Your task to perform on an android device: Search for "lenovo thinkpad" on ebay, select the first entry, and add it to the cart. Image 0: 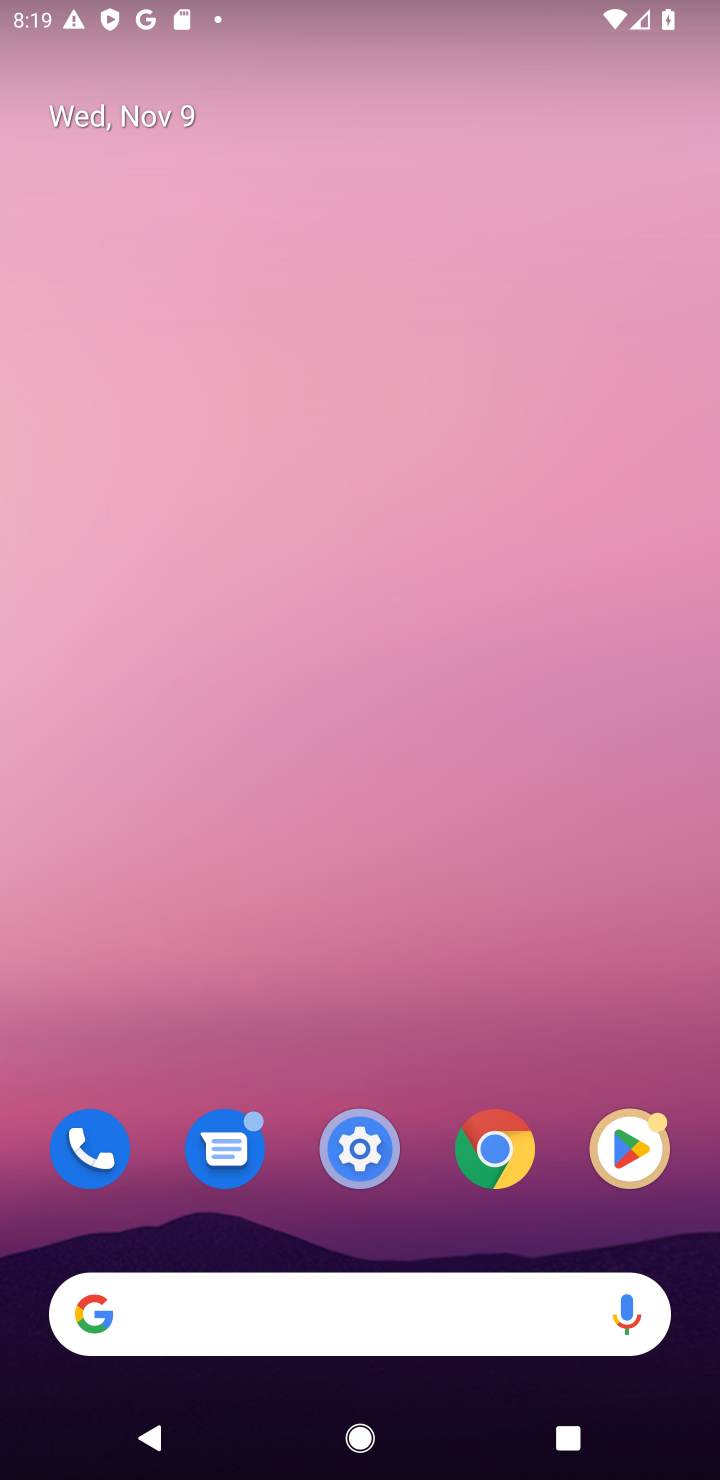
Step 0: drag from (444, 1183) to (264, 142)
Your task to perform on an android device: Search for "lenovo thinkpad" on ebay, select the first entry, and add it to the cart. Image 1: 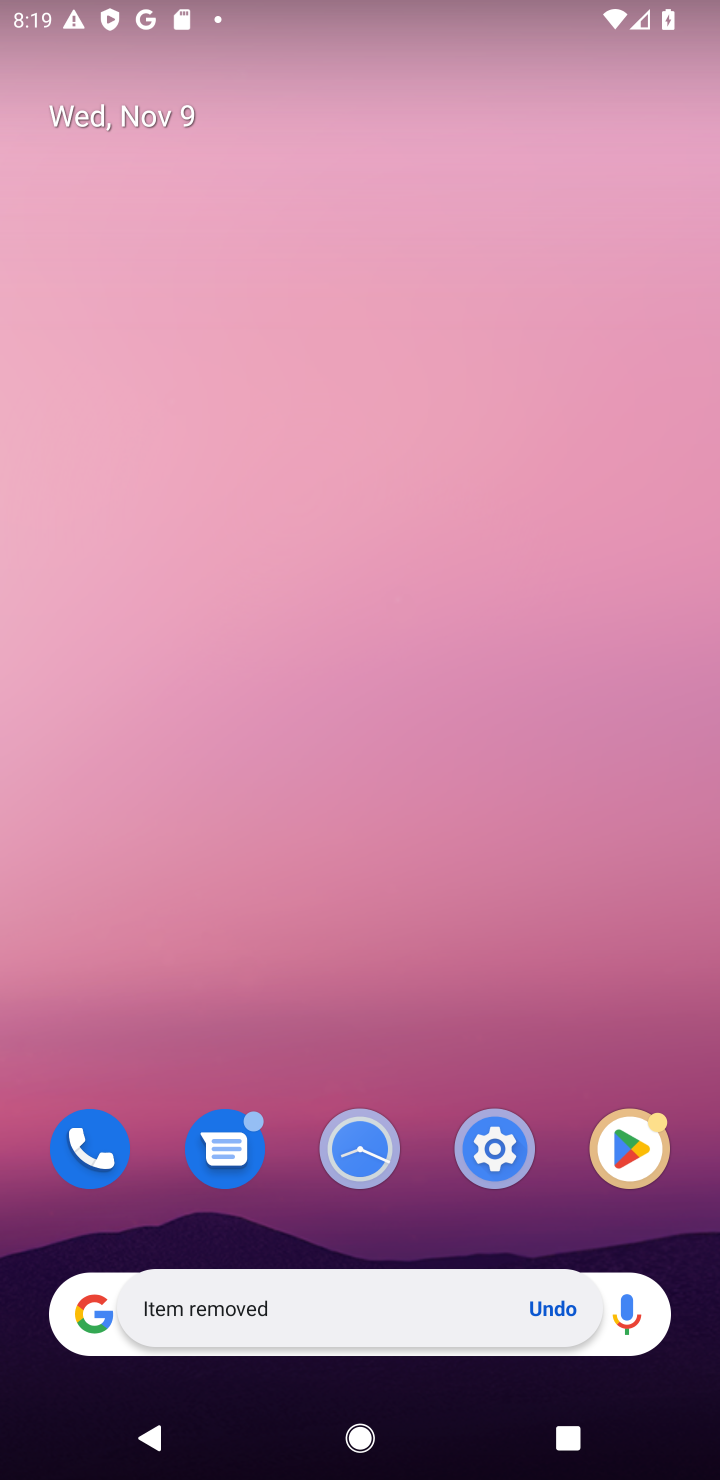
Step 1: drag from (251, 1313) to (373, 231)
Your task to perform on an android device: Search for "lenovo thinkpad" on ebay, select the first entry, and add it to the cart. Image 2: 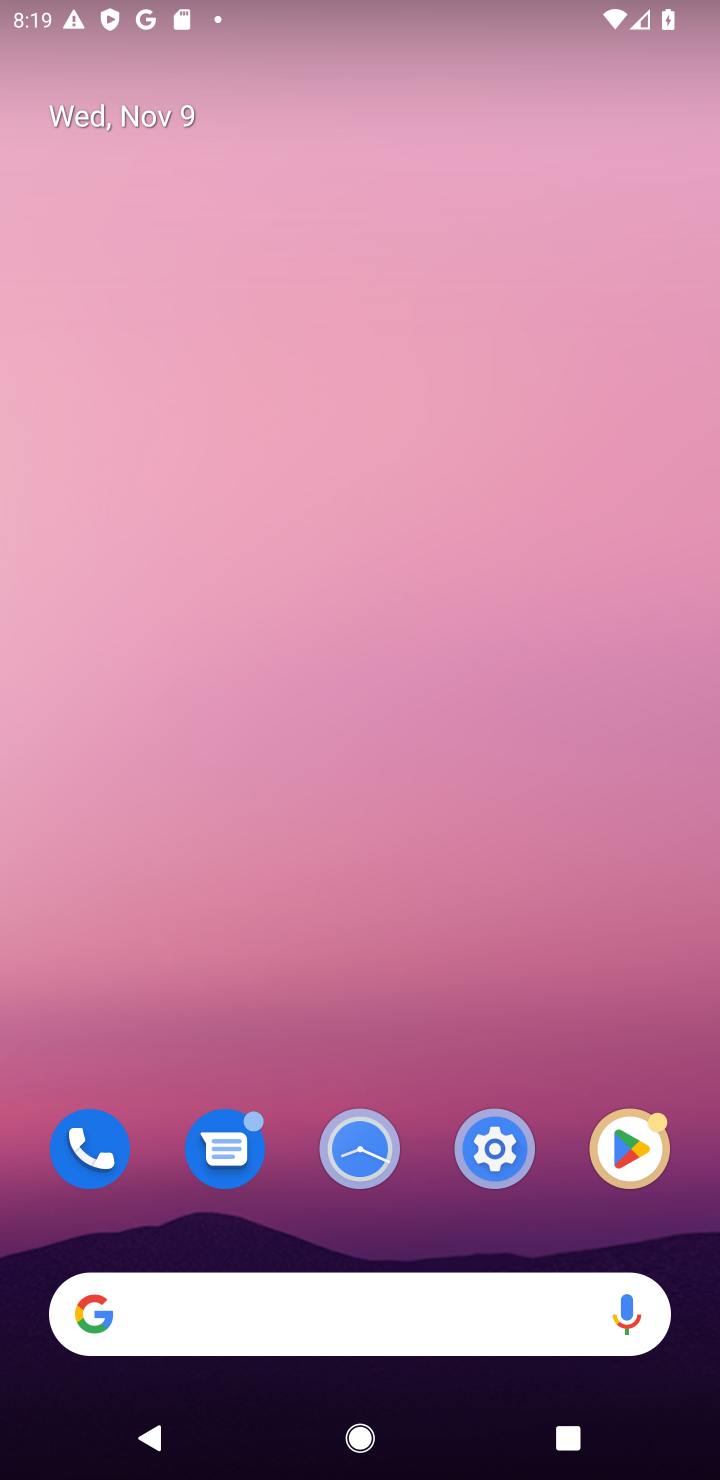
Step 2: drag from (469, 1062) to (525, 164)
Your task to perform on an android device: Search for "lenovo thinkpad" on ebay, select the first entry, and add it to the cart. Image 3: 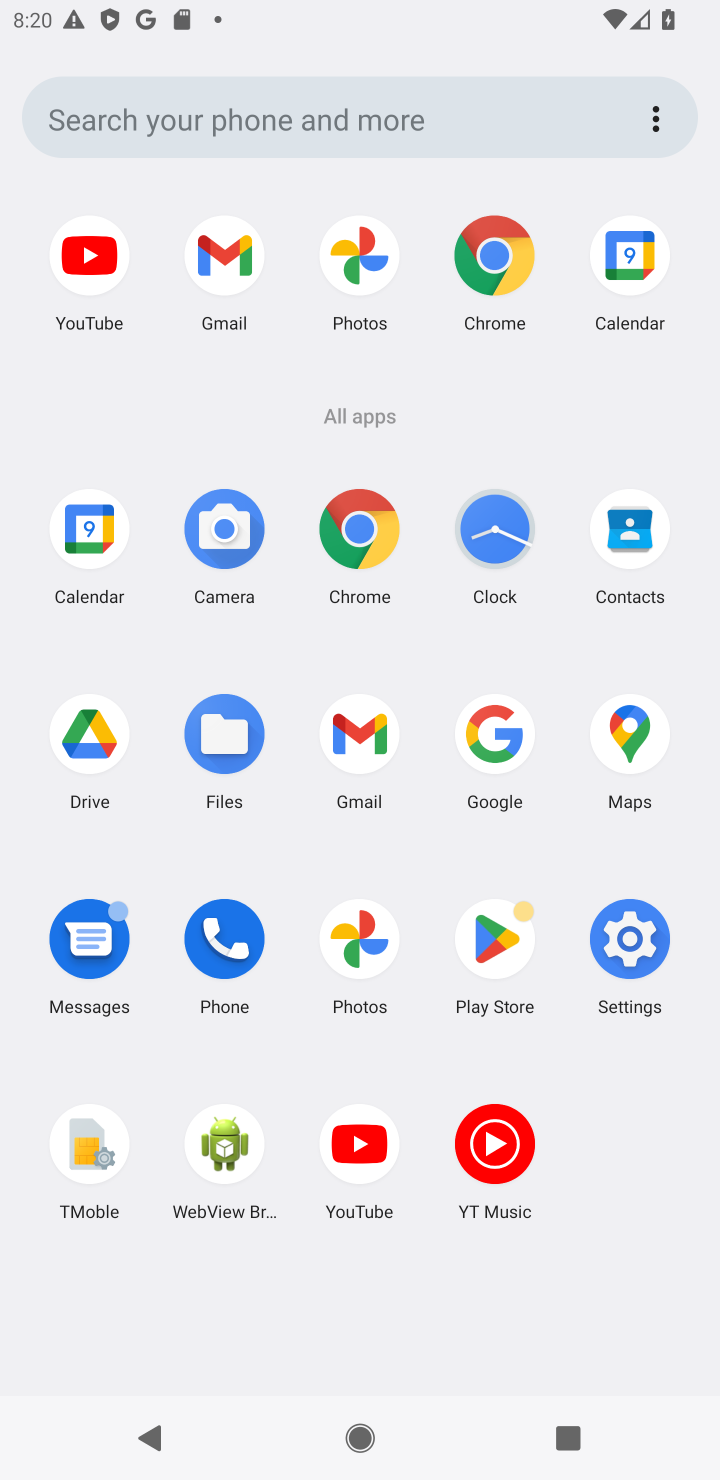
Step 3: click (352, 511)
Your task to perform on an android device: Search for "lenovo thinkpad" on ebay, select the first entry, and add it to the cart. Image 4: 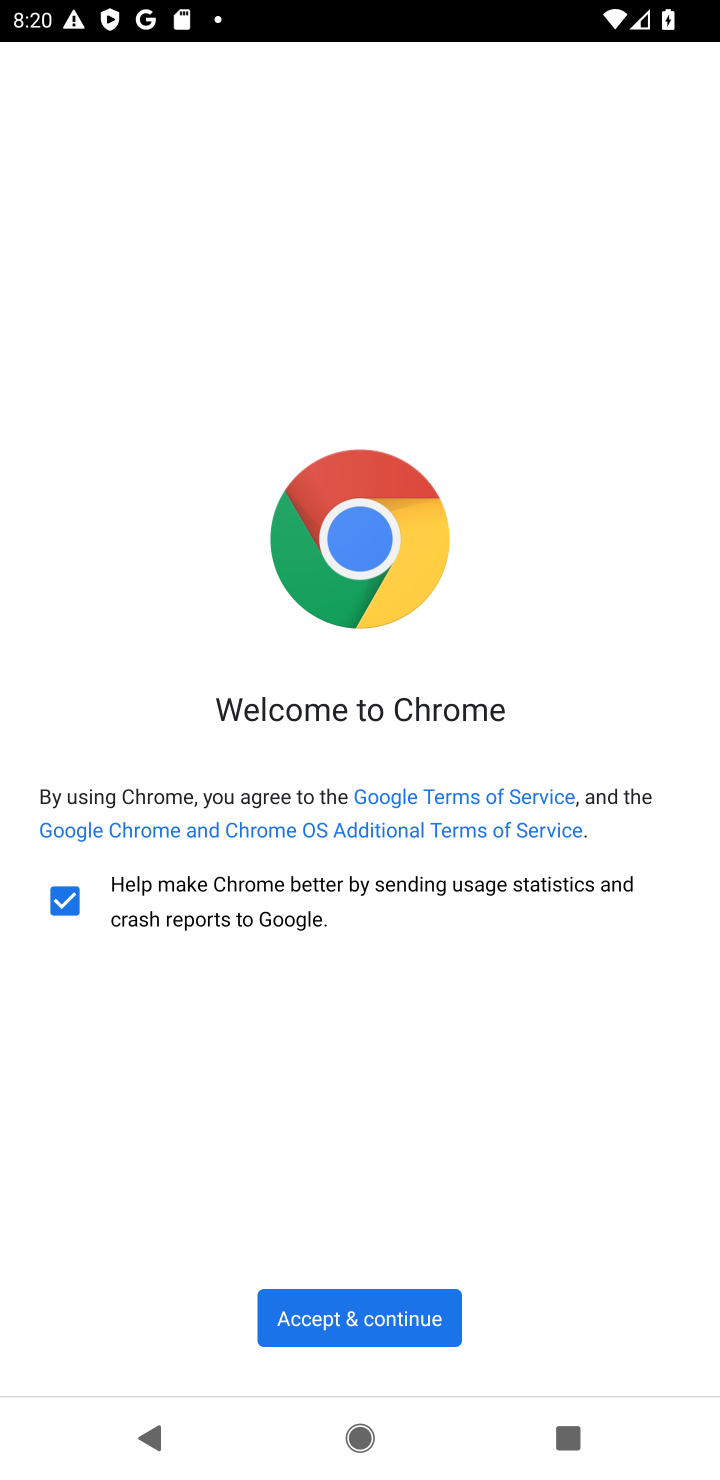
Step 4: click (386, 1307)
Your task to perform on an android device: Search for "lenovo thinkpad" on ebay, select the first entry, and add it to the cart. Image 5: 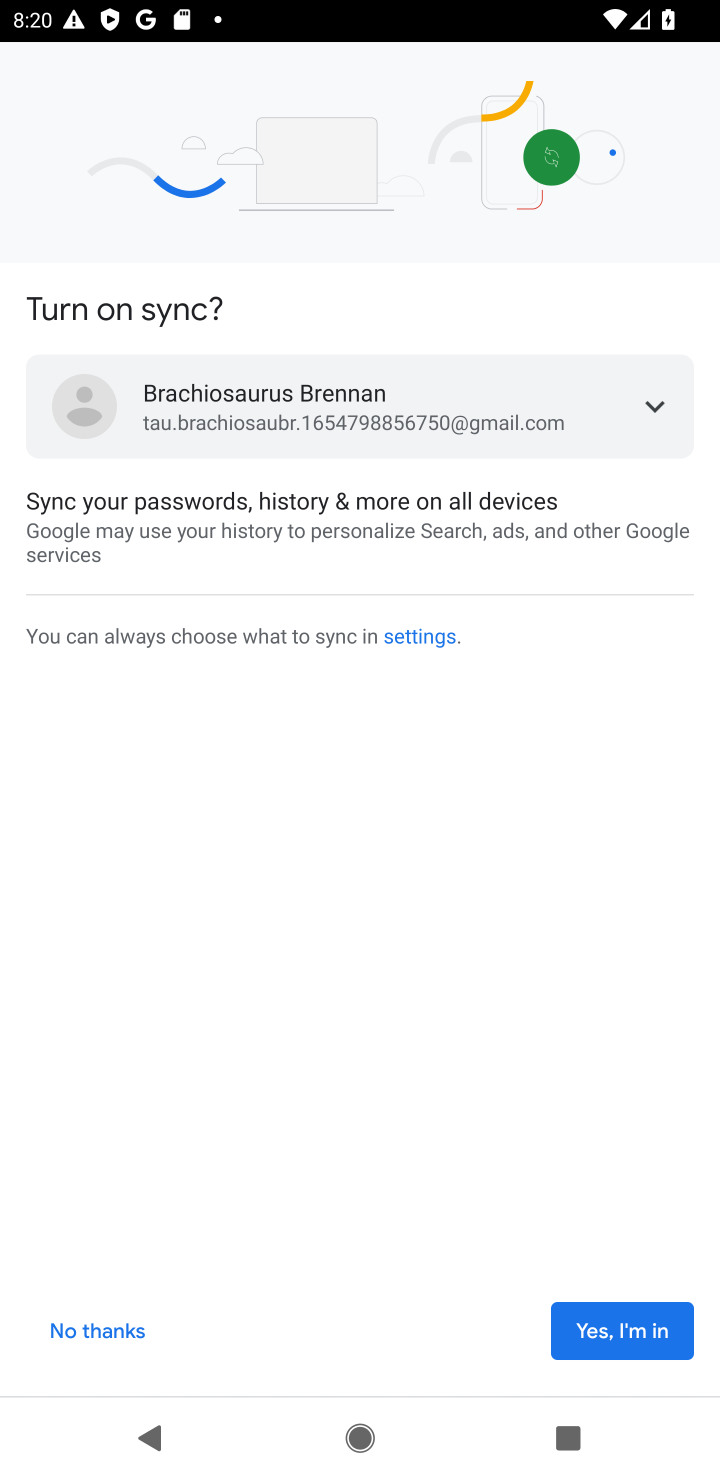
Step 5: click (600, 1326)
Your task to perform on an android device: Search for "lenovo thinkpad" on ebay, select the first entry, and add it to the cart. Image 6: 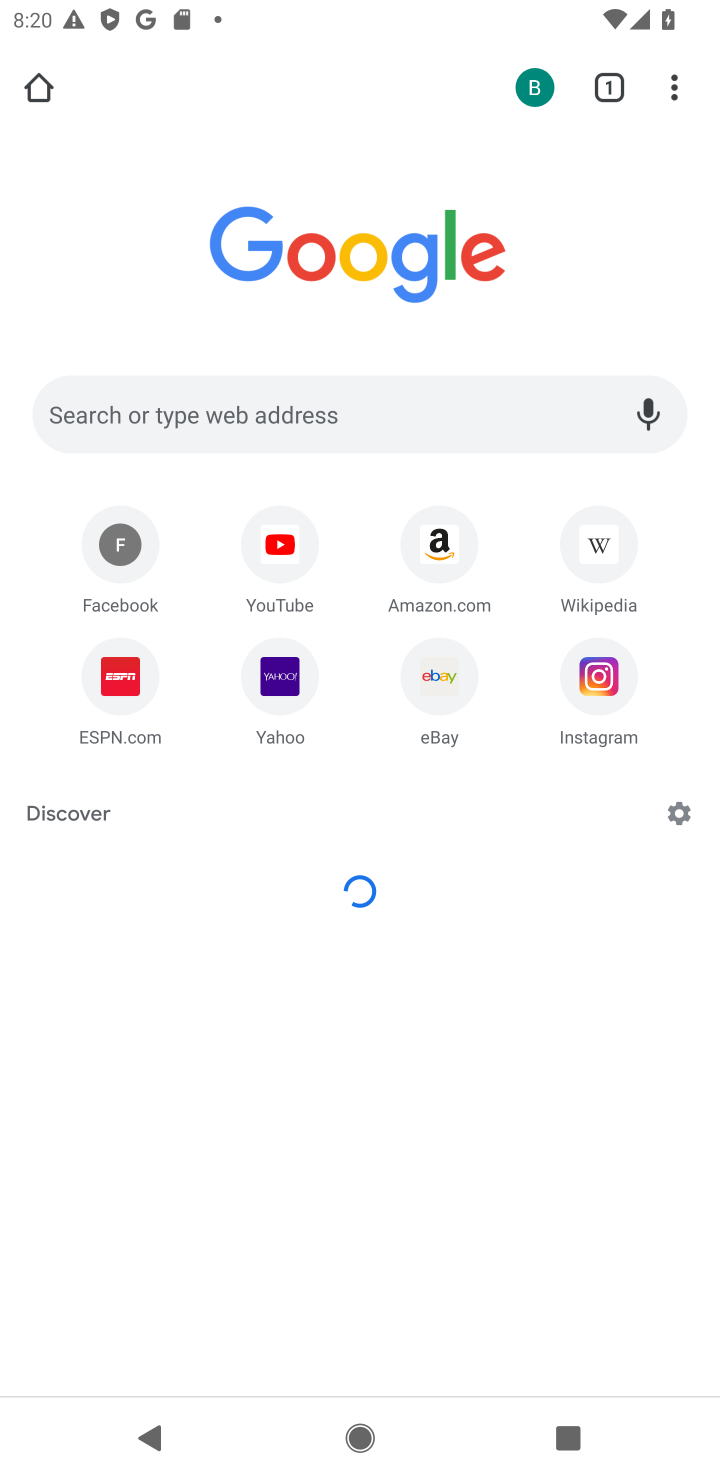
Step 6: click (245, 438)
Your task to perform on an android device: Search for "lenovo thinkpad" on ebay, select the first entry, and add it to the cart. Image 7: 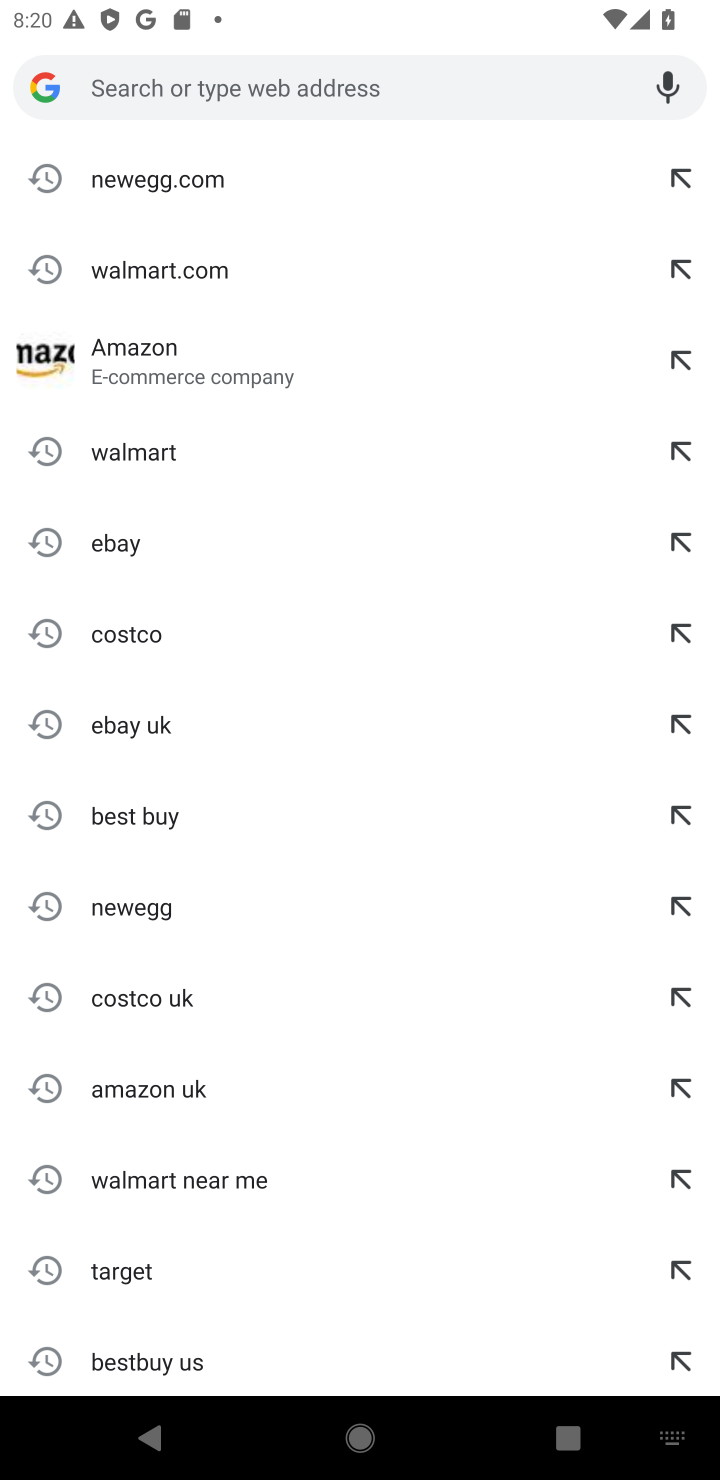
Step 7: type "ebay"
Your task to perform on an android device: Search for "lenovo thinkpad" on ebay, select the first entry, and add it to the cart. Image 8: 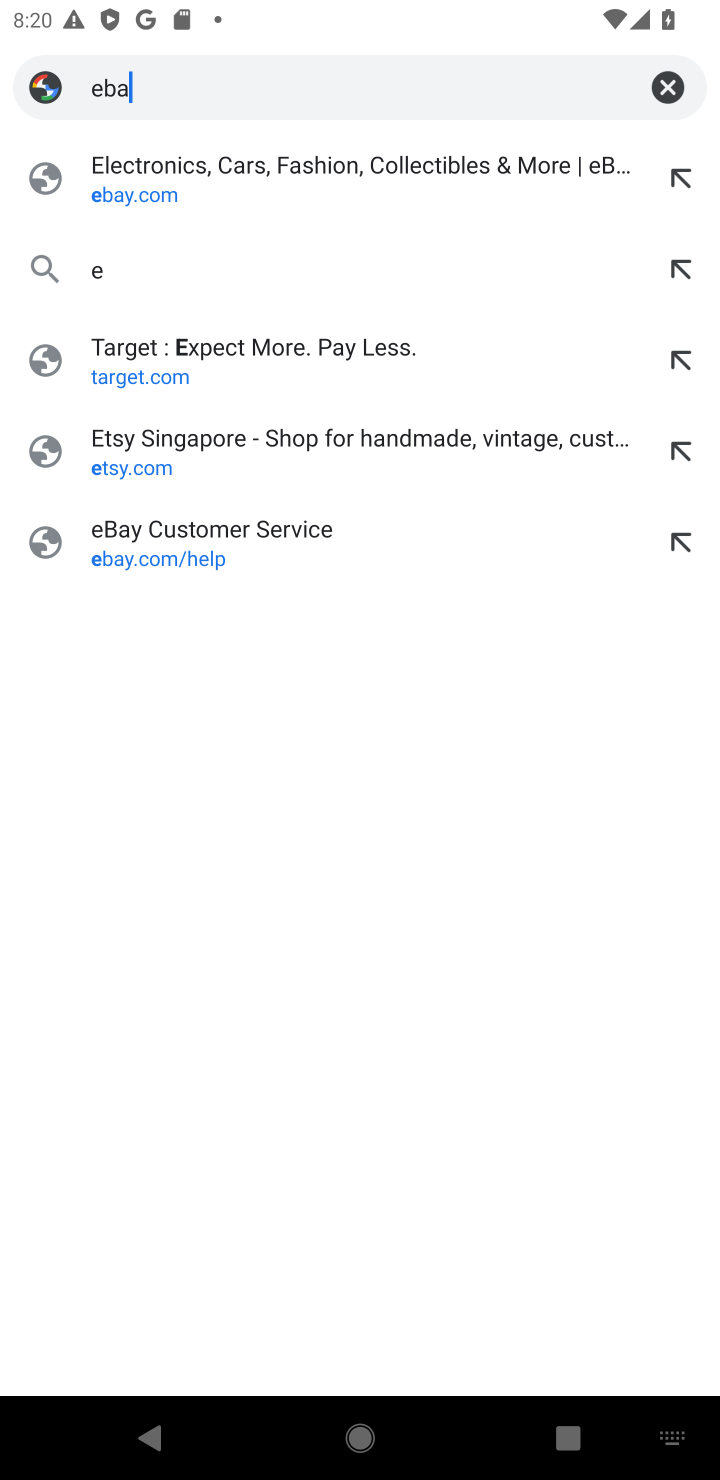
Step 8: press enter
Your task to perform on an android device: Search for "lenovo thinkpad" on ebay, select the first entry, and add it to the cart. Image 9: 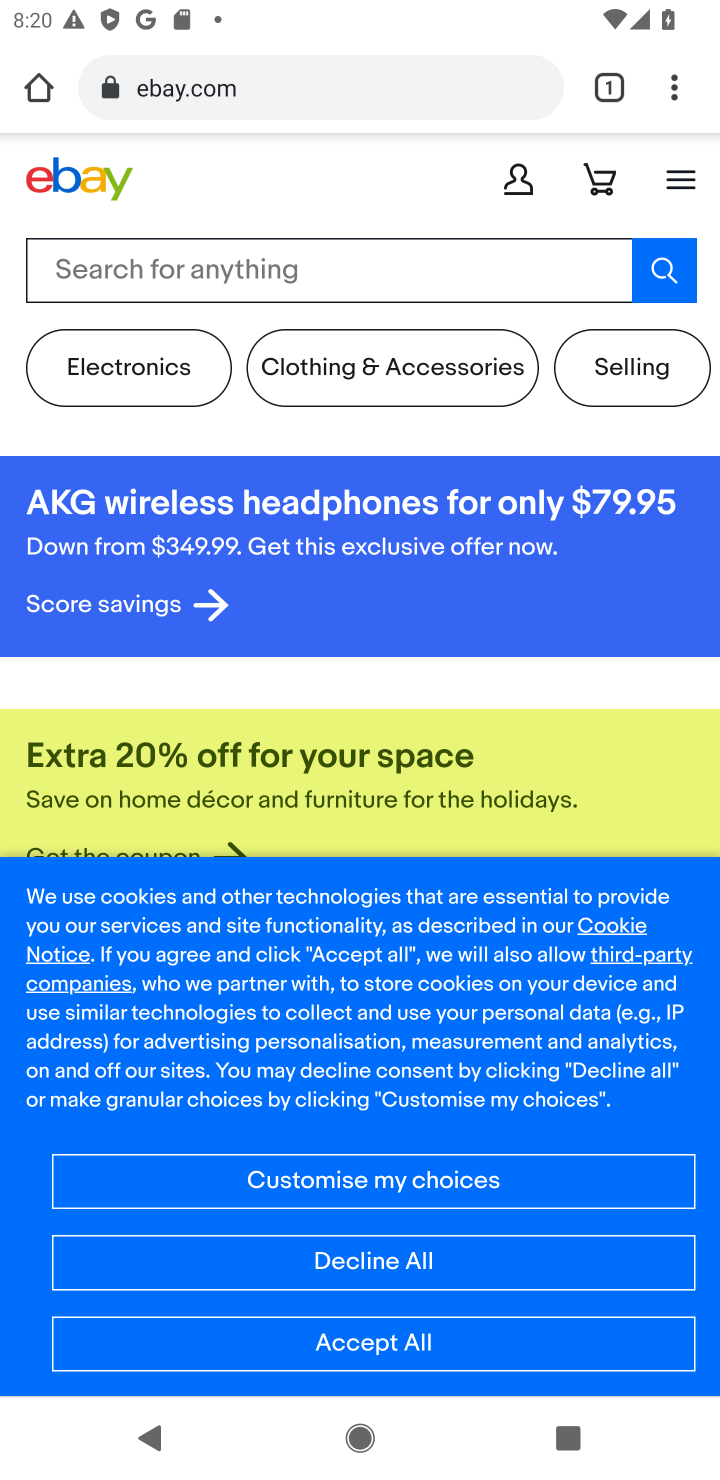
Step 9: click (118, 276)
Your task to perform on an android device: Search for "lenovo thinkpad" on ebay, select the first entry, and add it to the cart. Image 10: 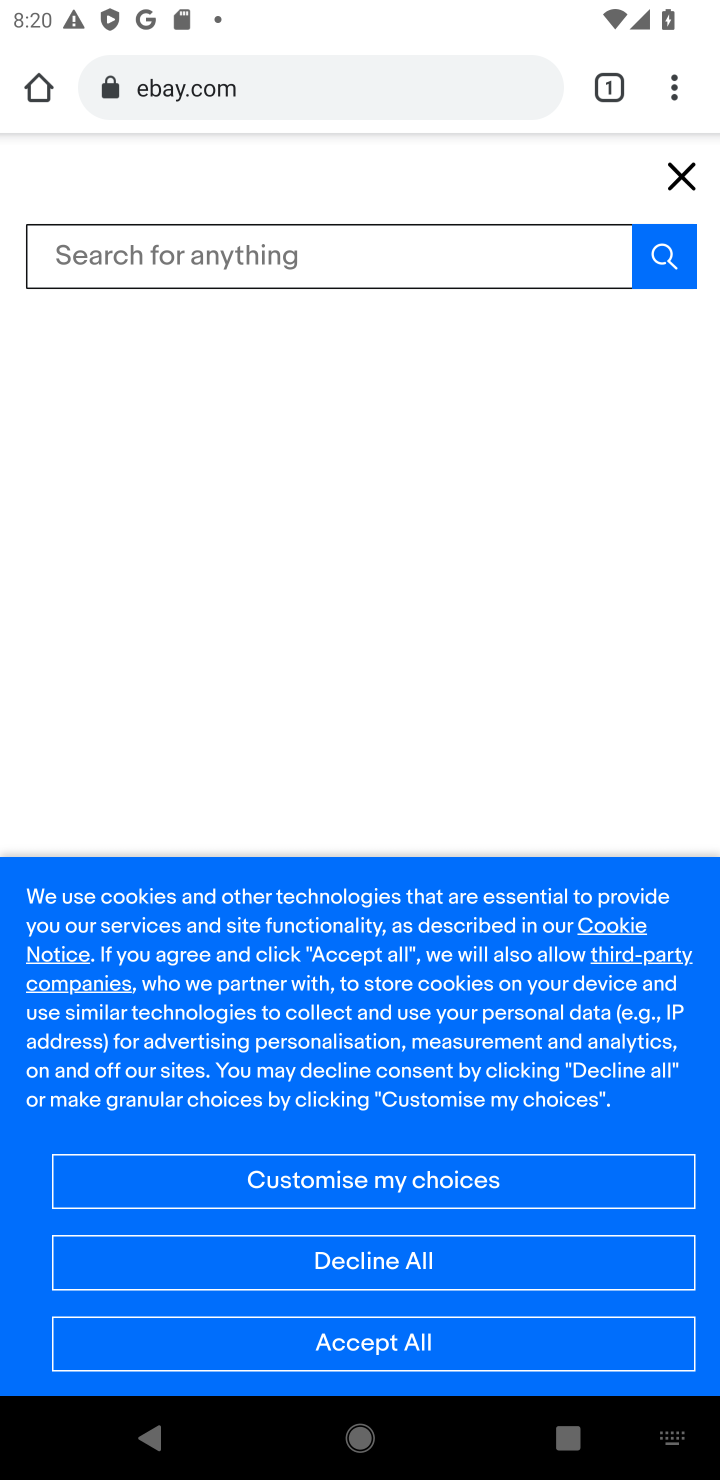
Step 10: type "lenovo thinkpad"
Your task to perform on an android device: Search for "lenovo thinkpad" on ebay, select the first entry, and add it to the cart. Image 11: 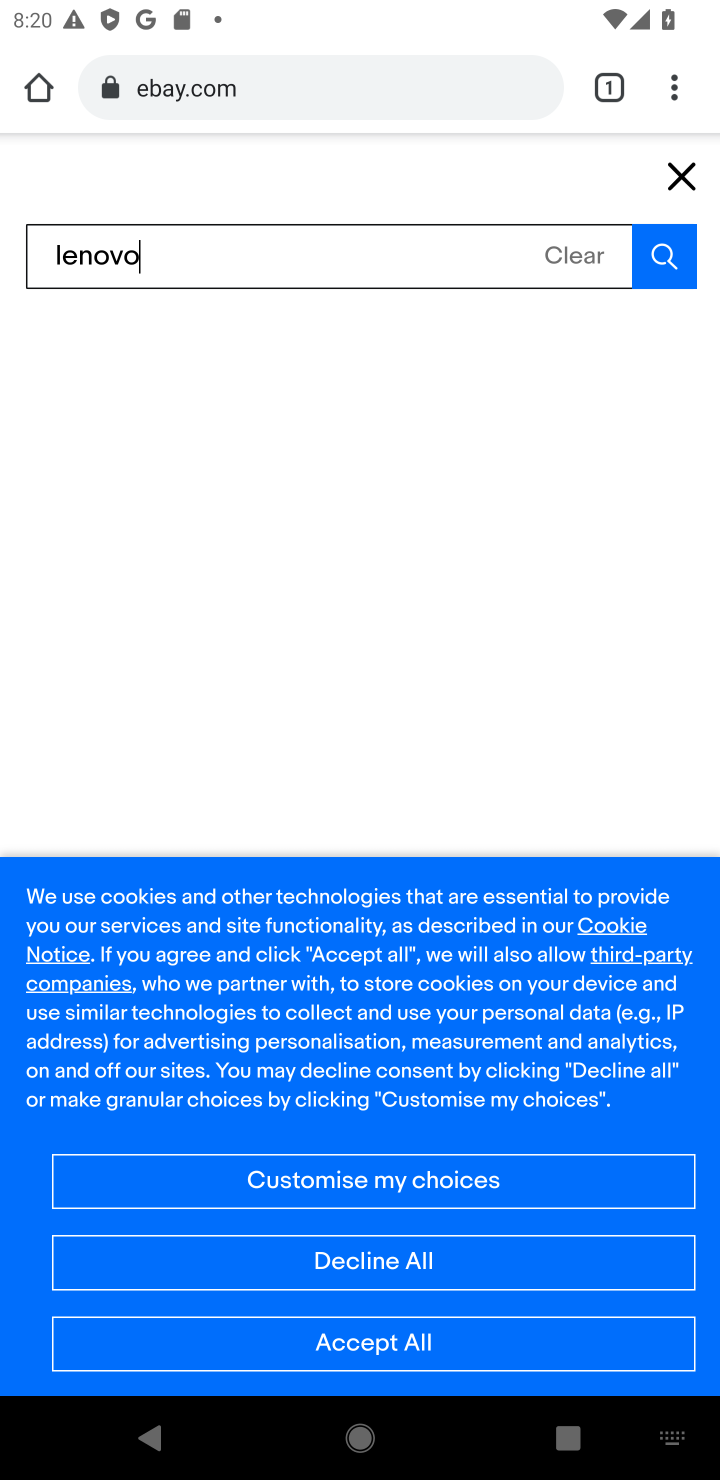
Step 11: press enter
Your task to perform on an android device: Search for "lenovo thinkpad" on ebay, select the first entry, and add it to the cart. Image 12: 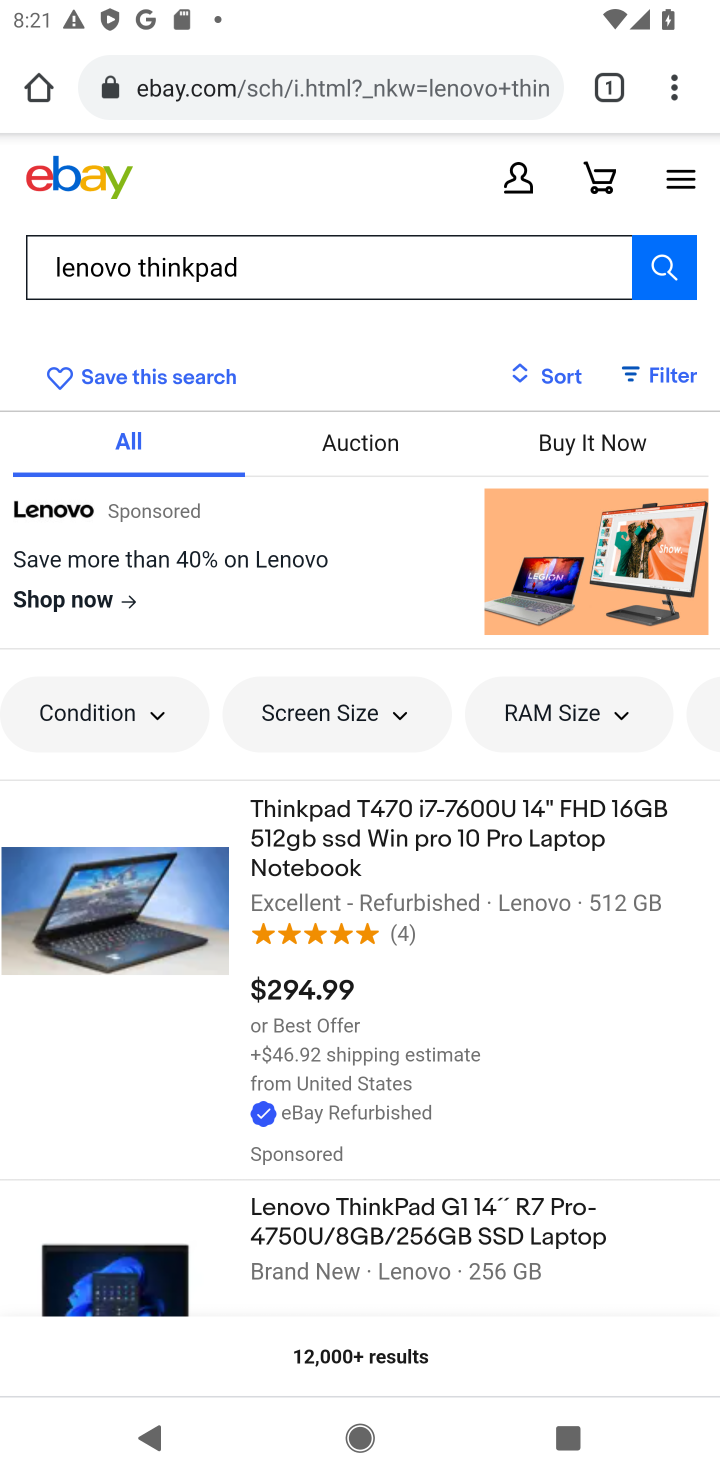
Step 12: click (482, 858)
Your task to perform on an android device: Search for "lenovo thinkpad" on ebay, select the first entry, and add it to the cart. Image 13: 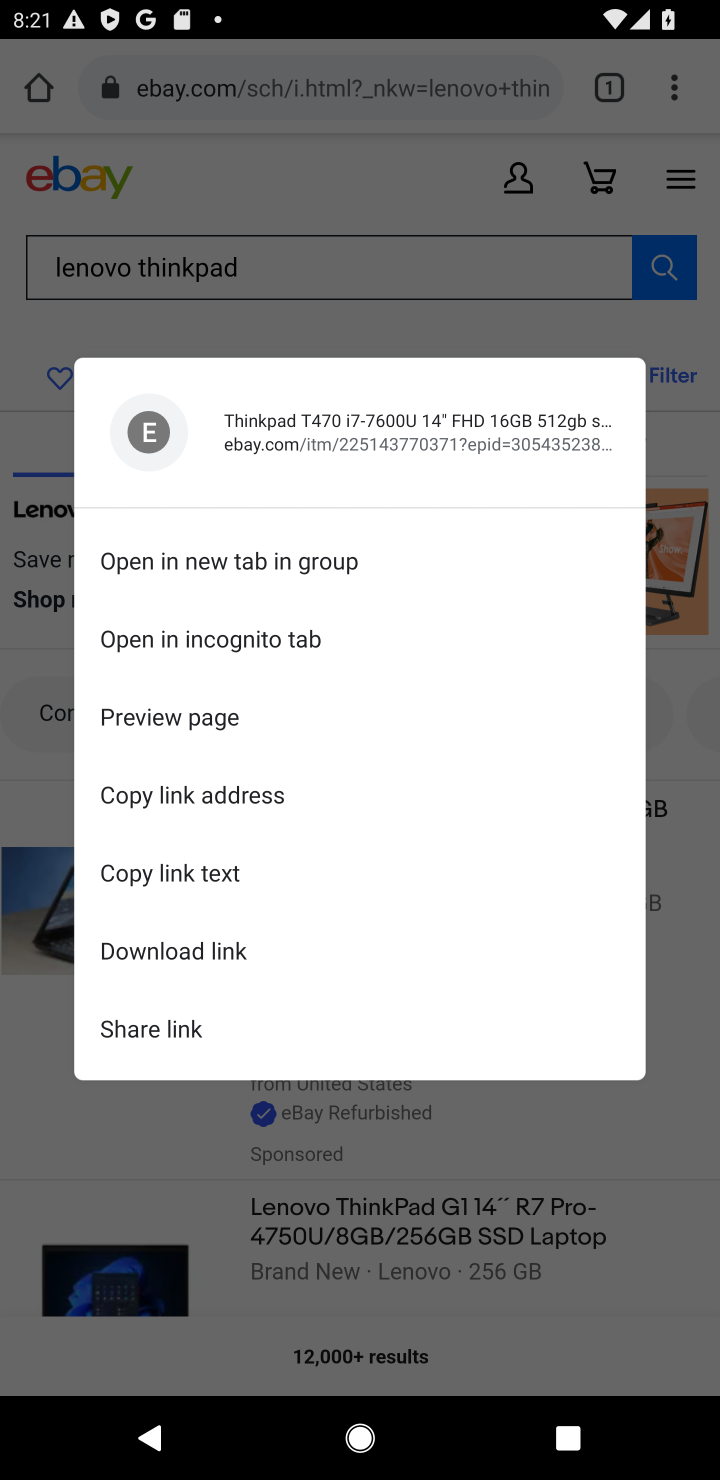
Step 13: click (139, 1186)
Your task to perform on an android device: Search for "lenovo thinkpad" on ebay, select the first entry, and add it to the cart. Image 14: 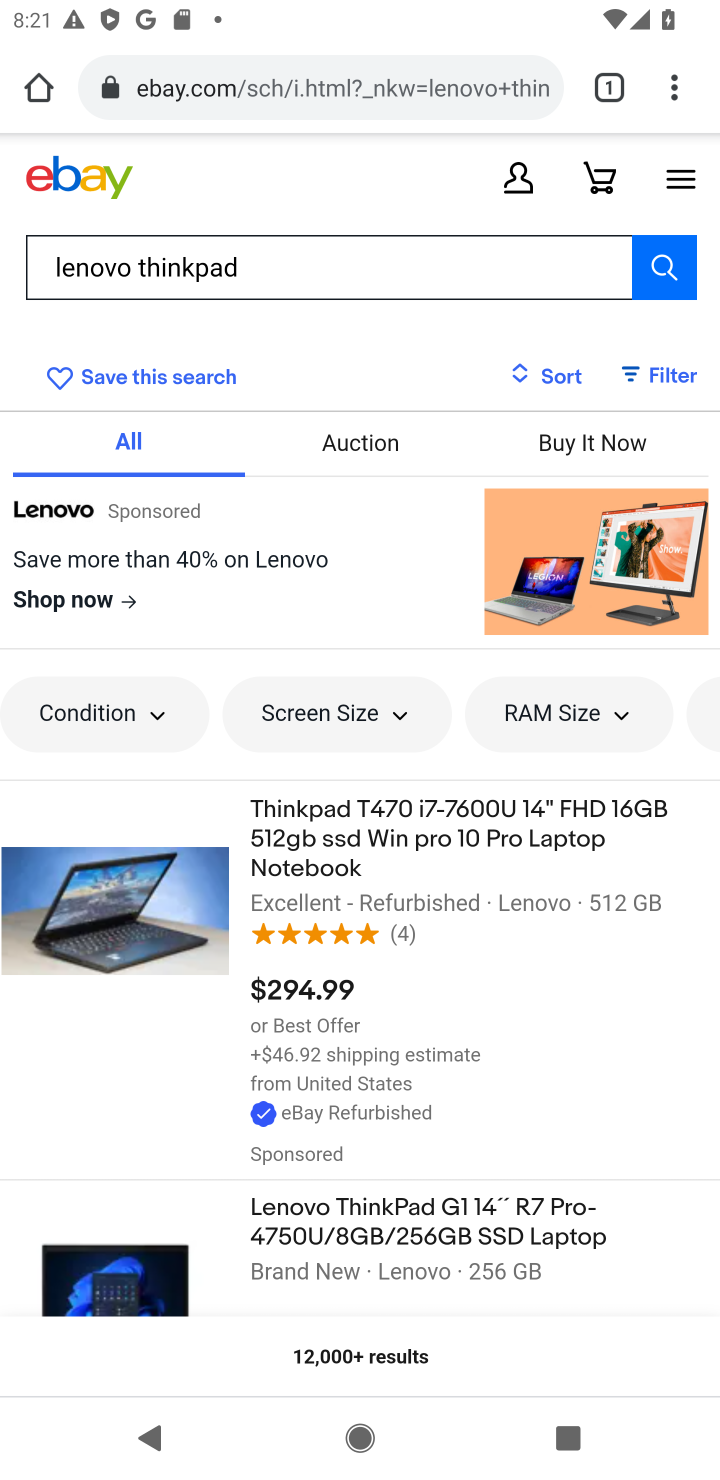
Step 14: click (207, 882)
Your task to perform on an android device: Search for "lenovo thinkpad" on ebay, select the first entry, and add it to the cart. Image 15: 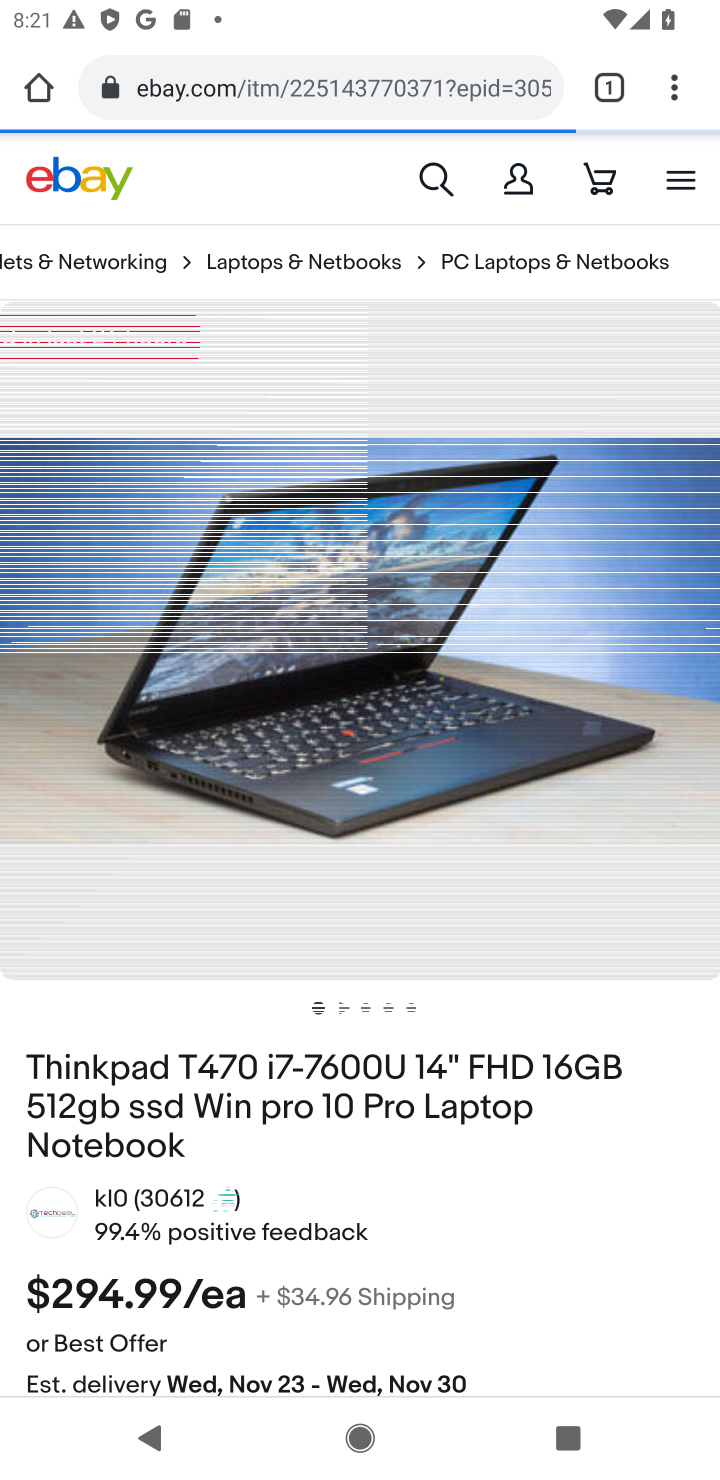
Step 15: drag from (492, 1211) to (435, 688)
Your task to perform on an android device: Search for "lenovo thinkpad" on ebay, select the first entry, and add it to the cart. Image 16: 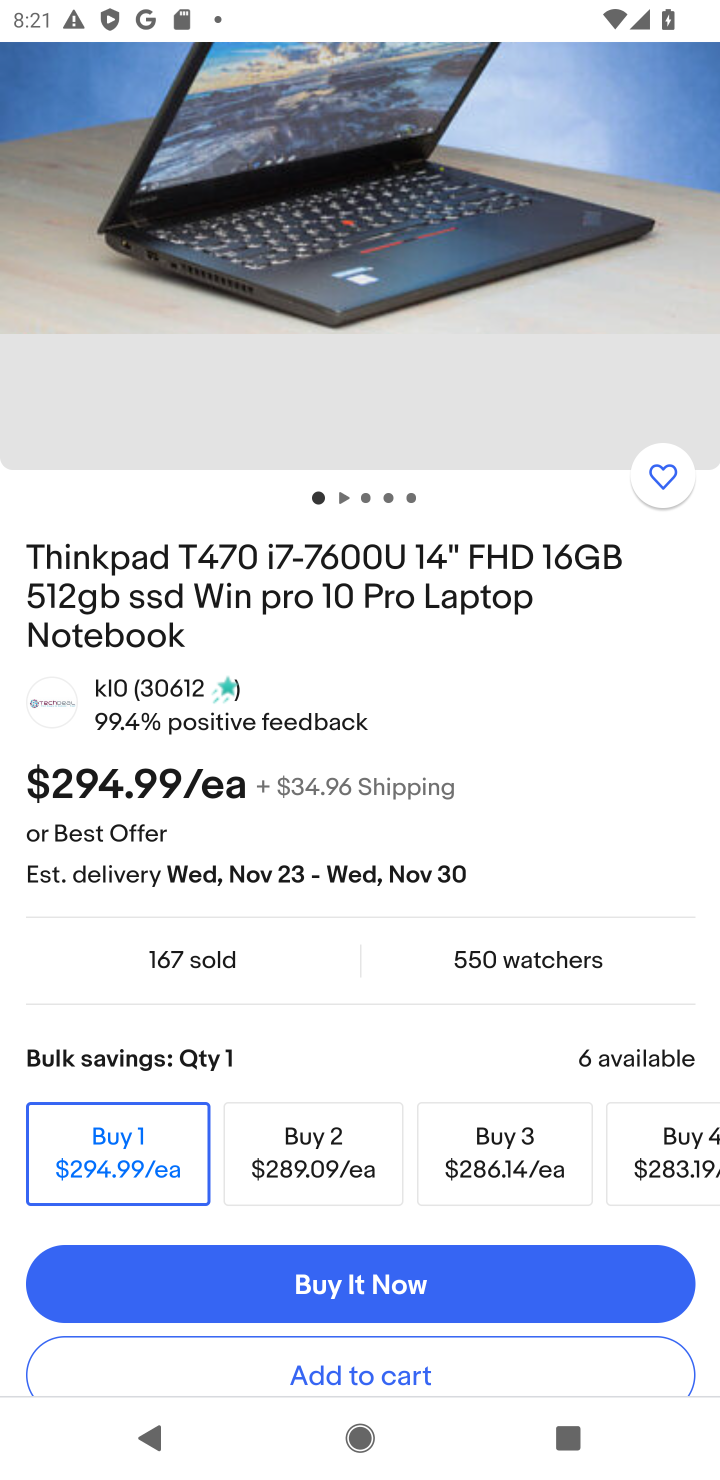
Step 16: drag from (386, 839) to (351, 757)
Your task to perform on an android device: Search for "lenovo thinkpad" on ebay, select the first entry, and add it to the cart. Image 17: 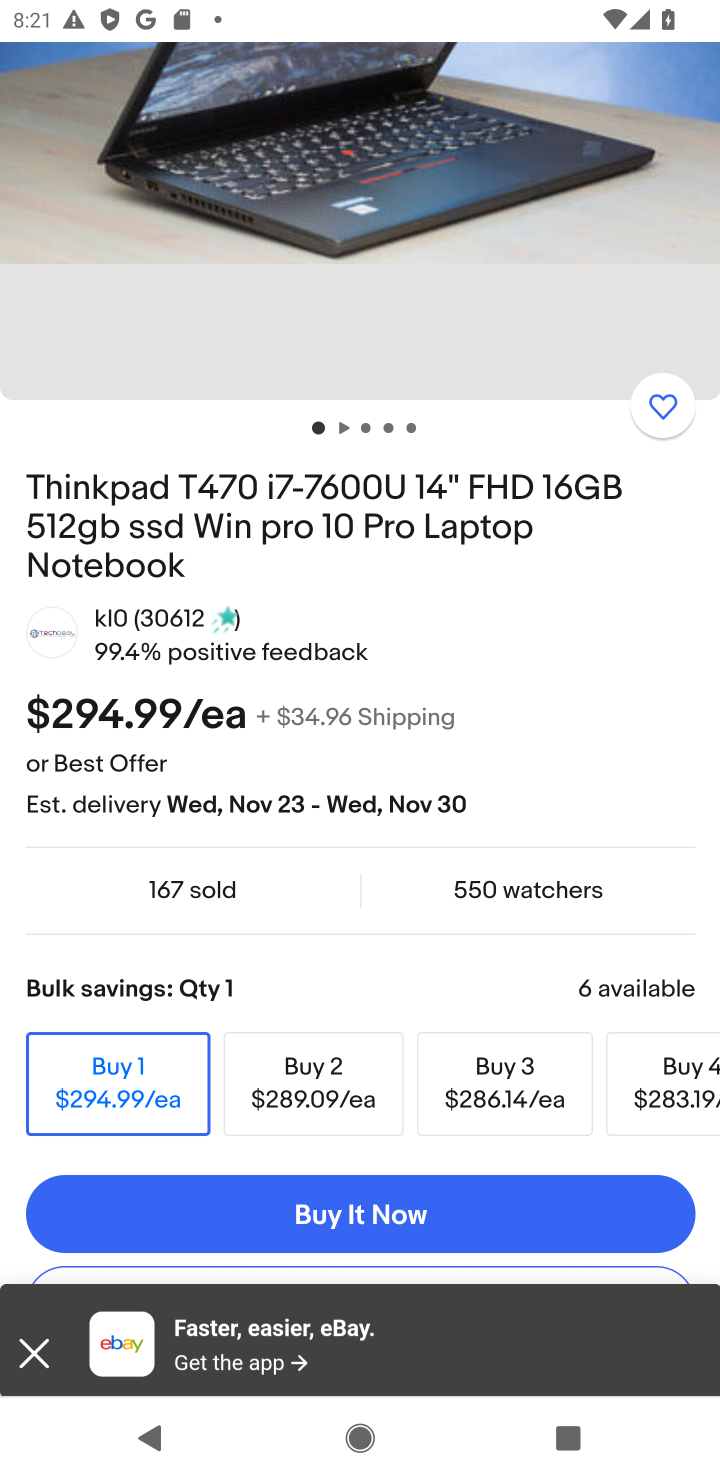
Step 17: drag from (457, 1192) to (315, 548)
Your task to perform on an android device: Search for "lenovo thinkpad" on ebay, select the first entry, and add it to the cart. Image 18: 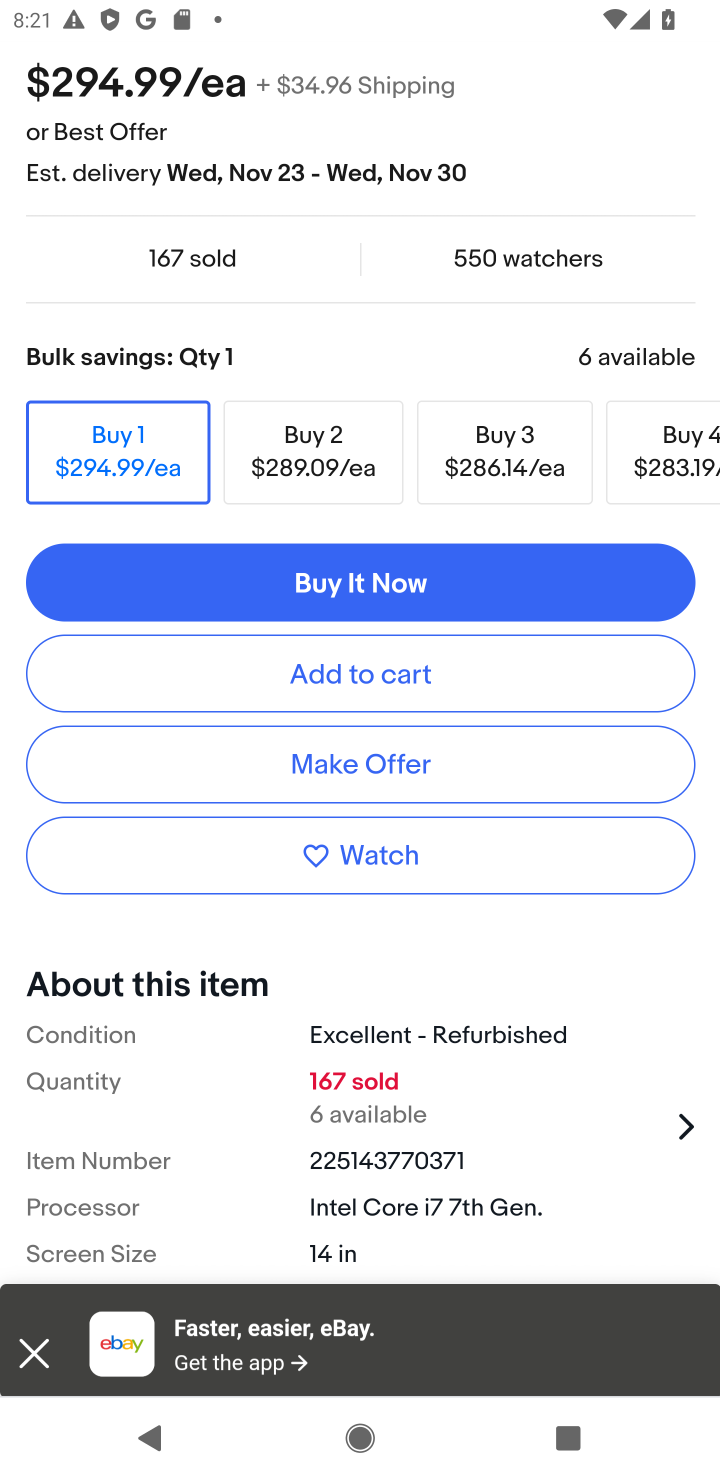
Step 18: click (380, 671)
Your task to perform on an android device: Search for "lenovo thinkpad" on ebay, select the first entry, and add it to the cart. Image 19: 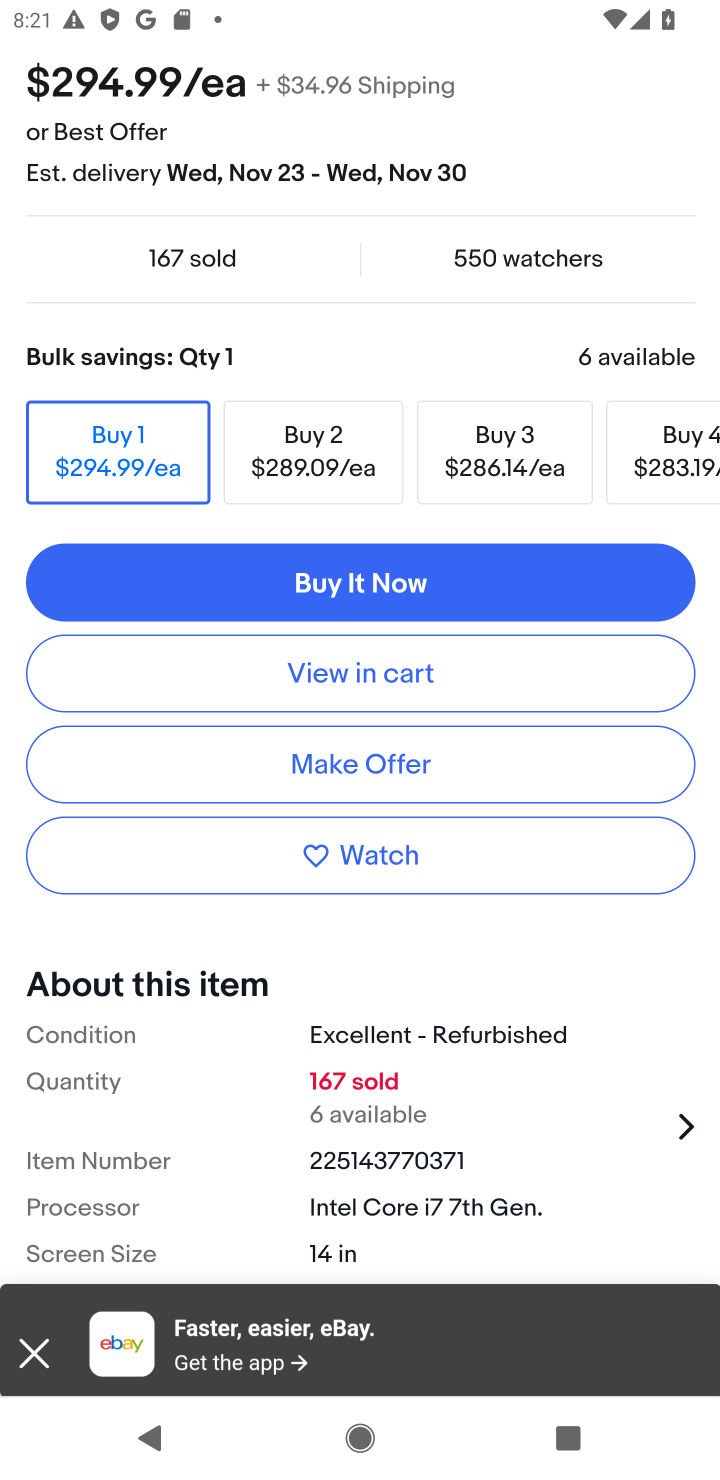
Step 19: click (384, 674)
Your task to perform on an android device: Search for "lenovo thinkpad" on ebay, select the first entry, and add it to the cart. Image 20: 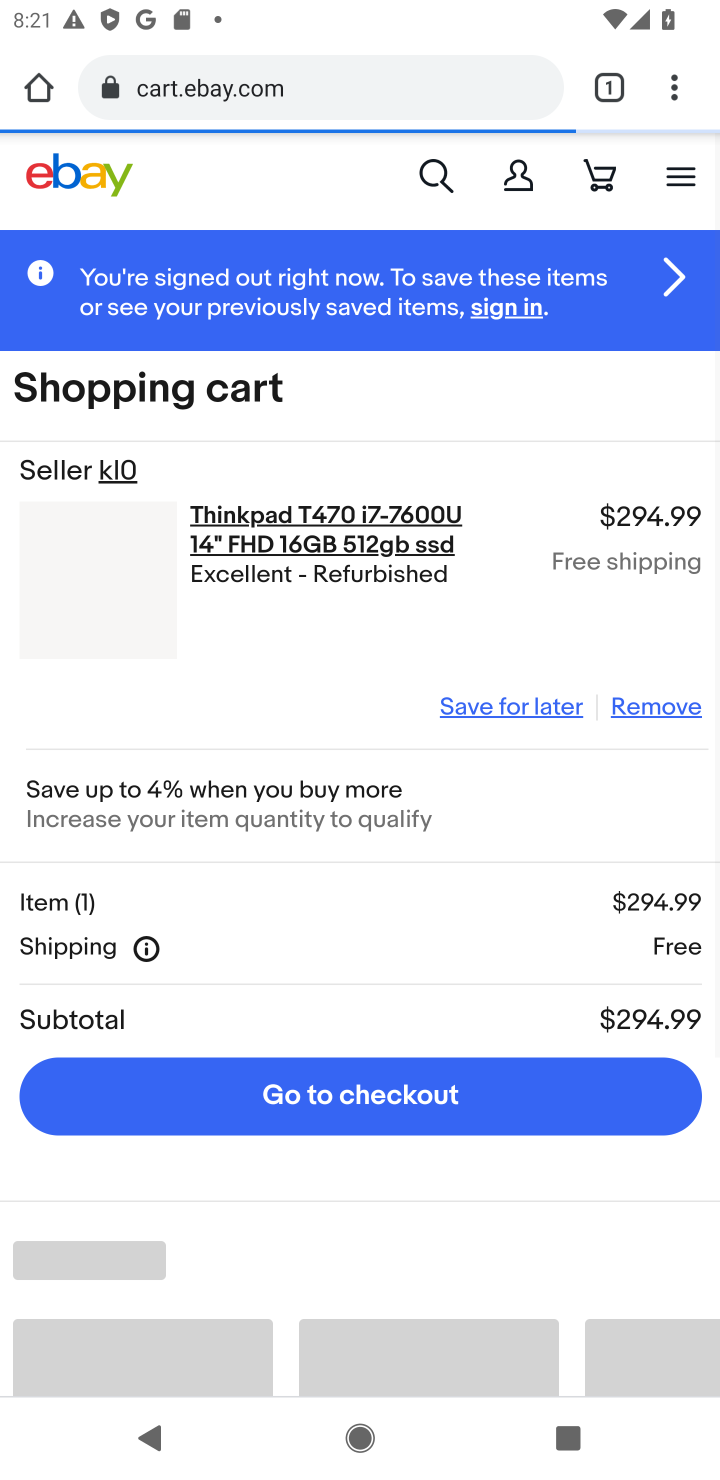
Step 20: task complete